Your task to perform on an android device: Open Wikipedia Image 0: 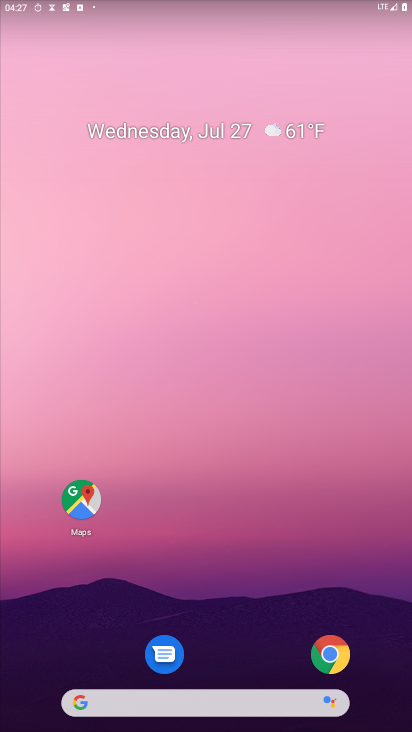
Step 0: drag from (333, 584) to (373, 21)
Your task to perform on an android device: Open Wikipedia Image 1: 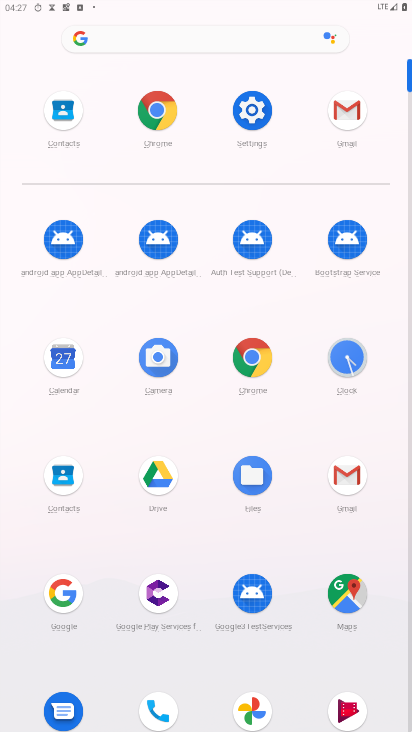
Step 1: click (261, 362)
Your task to perform on an android device: Open Wikipedia Image 2: 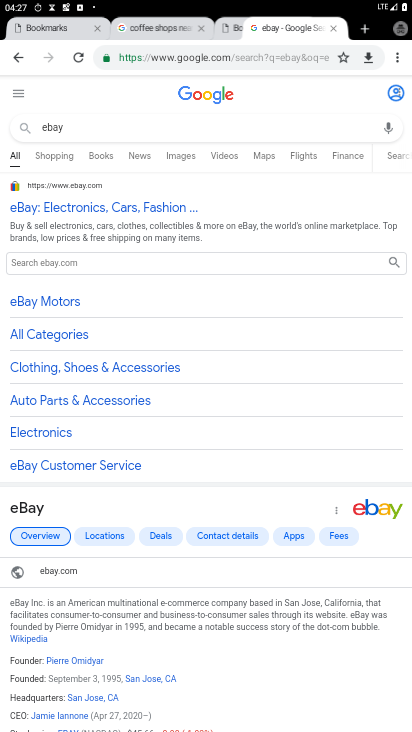
Step 2: click (400, 57)
Your task to perform on an android device: Open Wikipedia Image 3: 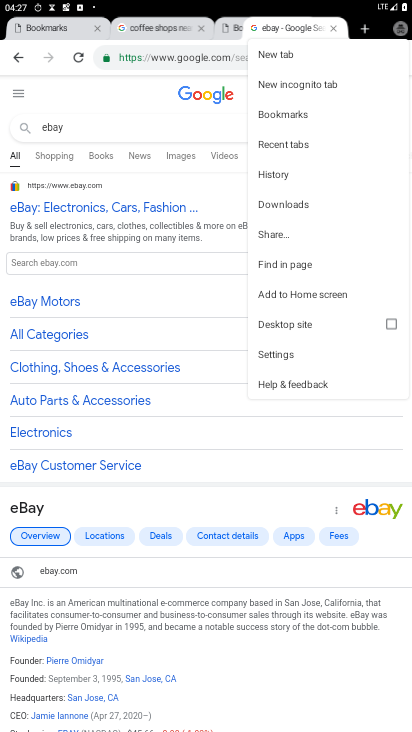
Step 3: click (305, 60)
Your task to perform on an android device: Open Wikipedia Image 4: 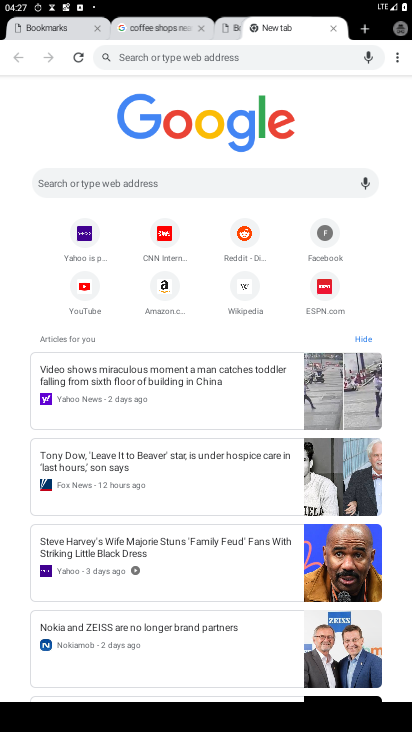
Step 4: click (256, 285)
Your task to perform on an android device: Open Wikipedia Image 5: 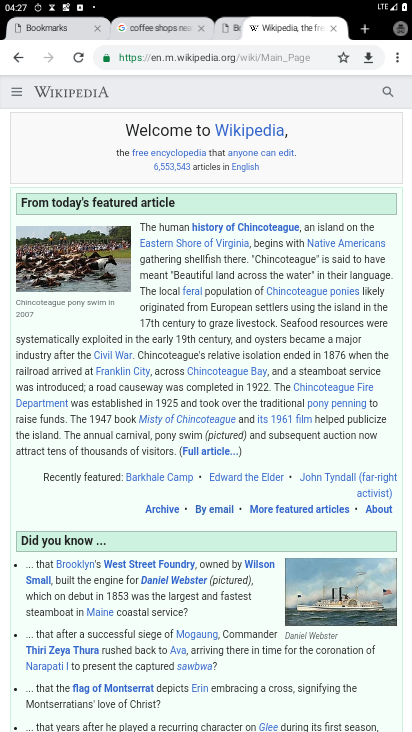
Step 5: task complete